Your task to perform on an android device: Go to network settings Image 0: 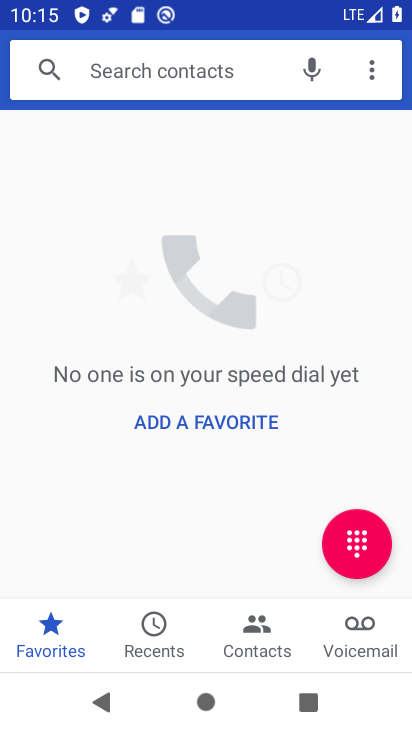
Step 0: press home button
Your task to perform on an android device: Go to network settings Image 1: 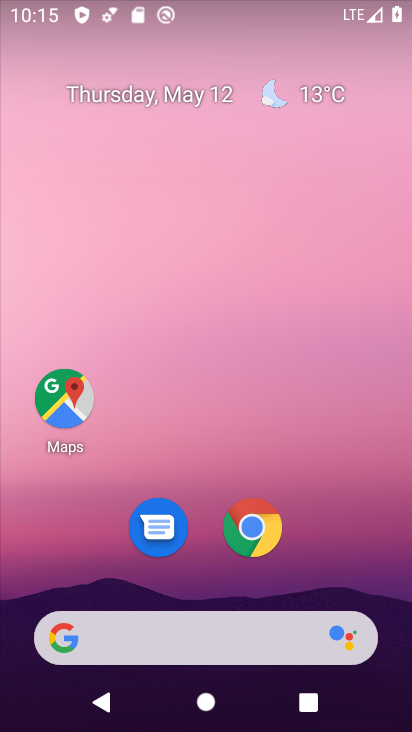
Step 1: drag from (323, 562) to (349, 179)
Your task to perform on an android device: Go to network settings Image 2: 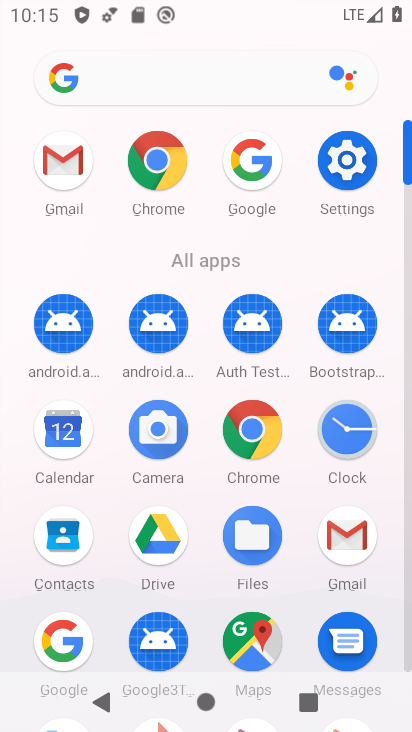
Step 2: click (358, 184)
Your task to perform on an android device: Go to network settings Image 3: 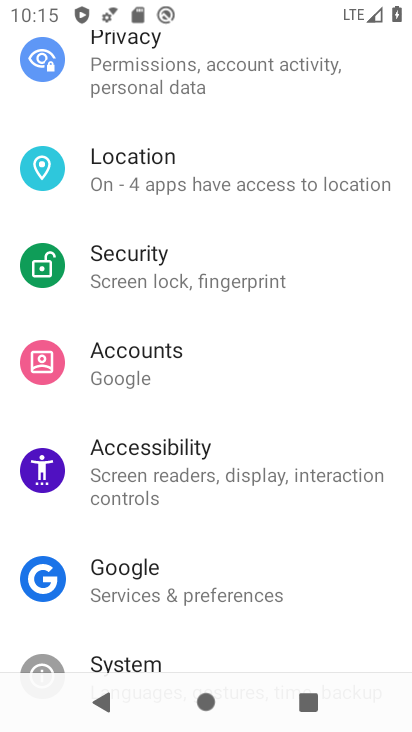
Step 3: drag from (176, 109) to (76, 379)
Your task to perform on an android device: Go to network settings Image 4: 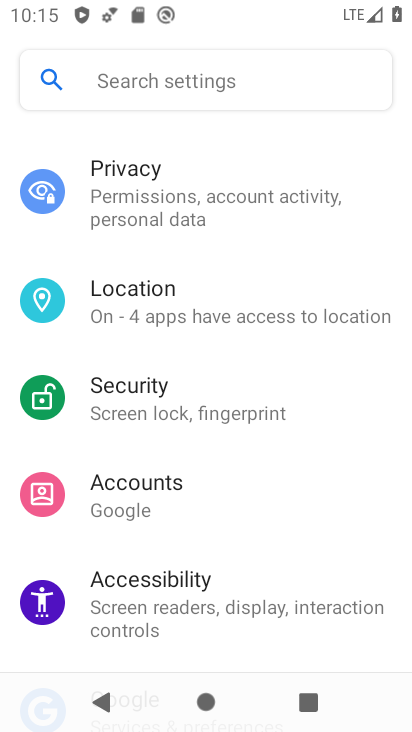
Step 4: drag from (123, 254) to (57, 565)
Your task to perform on an android device: Go to network settings Image 5: 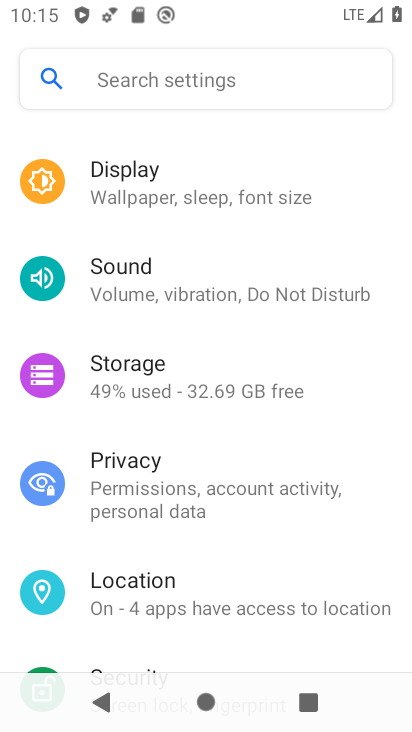
Step 5: drag from (147, 225) to (106, 510)
Your task to perform on an android device: Go to network settings Image 6: 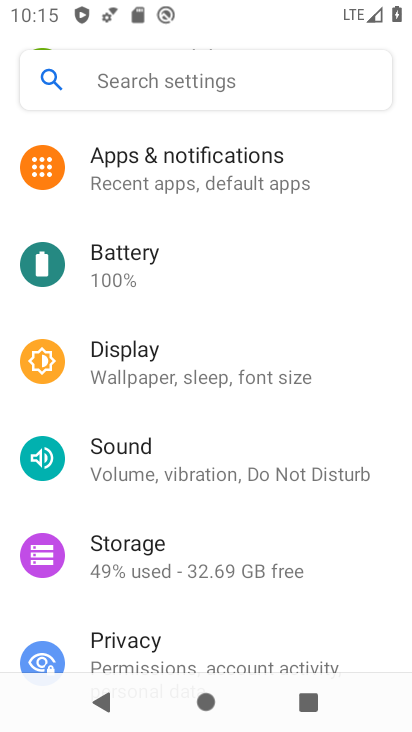
Step 6: drag from (138, 206) to (126, 452)
Your task to perform on an android device: Go to network settings Image 7: 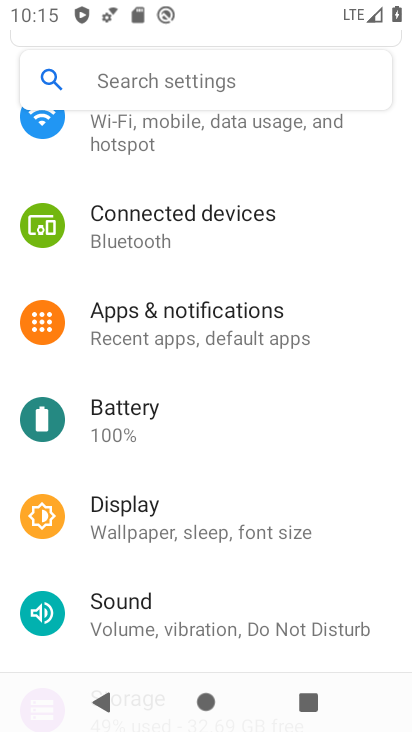
Step 7: drag from (148, 180) to (141, 394)
Your task to perform on an android device: Go to network settings Image 8: 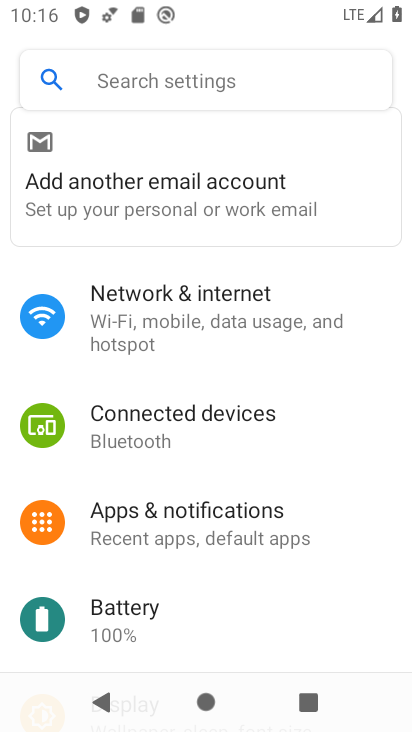
Step 8: click (141, 315)
Your task to perform on an android device: Go to network settings Image 9: 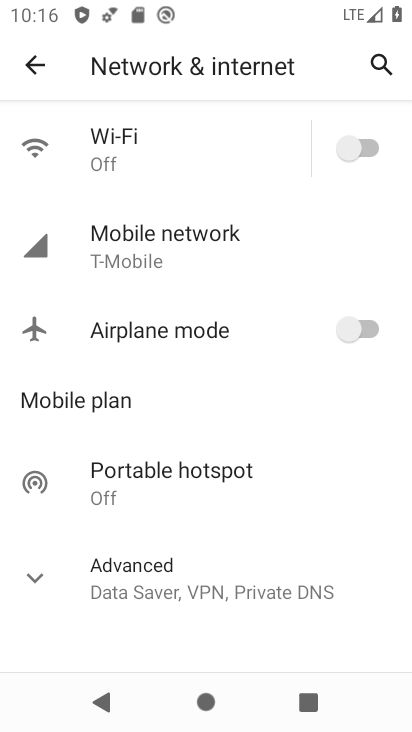
Step 9: task complete